Your task to perform on an android device: Open accessibility settings Image 0: 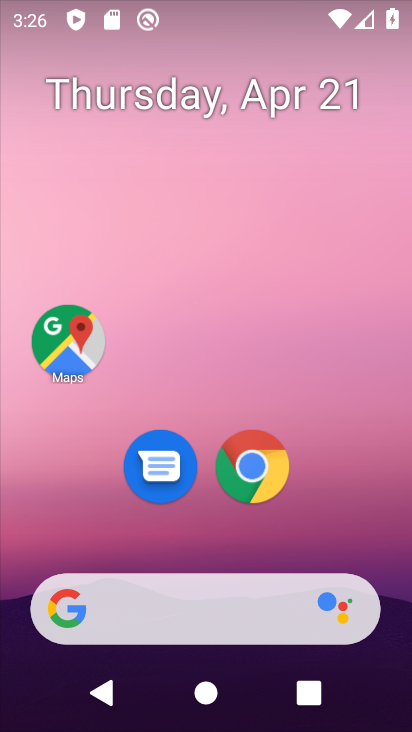
Step 0: drag from (224, 559) to (239, 187)
Your task to perform on an android device: Open accessibility settings Image 1: 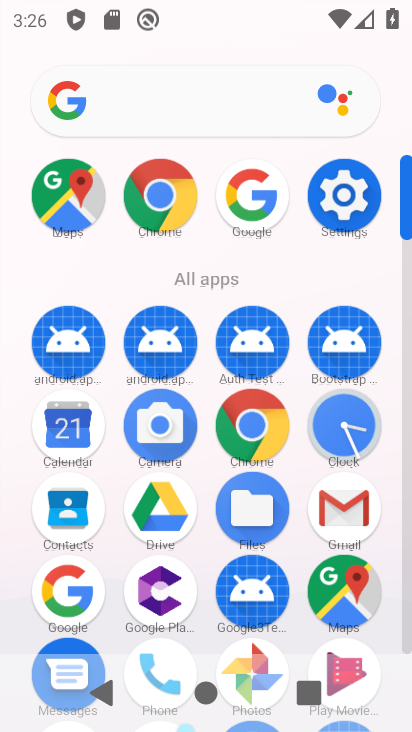
Step 1: click (330, 188)
Your task to perform on an android device: Open accessibility settings Image 2: 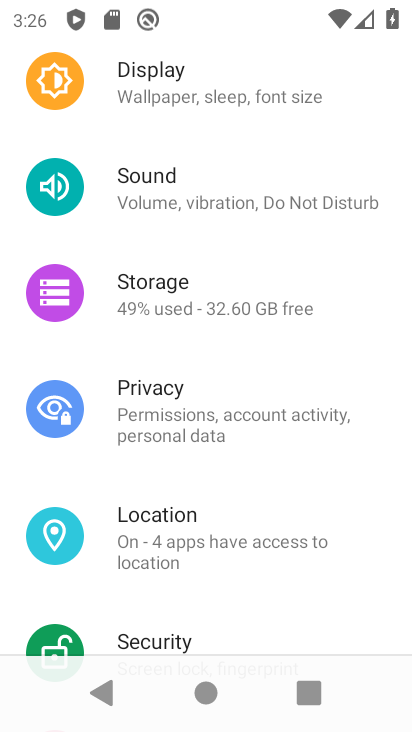
Step 2: drag from (216, 626) to (247, 254)
Your task to perform on an android device: Open accessibility settings Image 3: 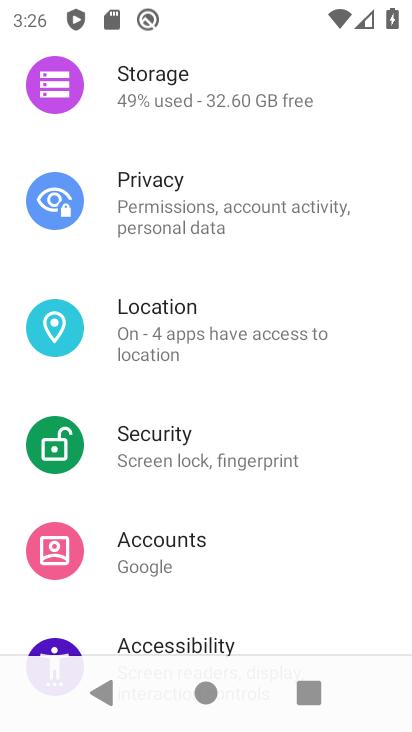
Step 3: drag from (252, 582) to (271, 305)
Your task to perform on an android device: Open accessibility settings Image 4: 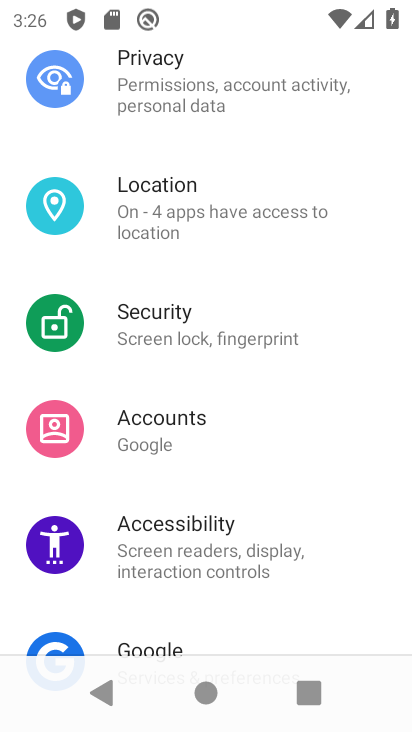
Step 4: drag from (258, 598) to (273, 512)
Your task to perform on an android device: Open accessibility settings Image 5: 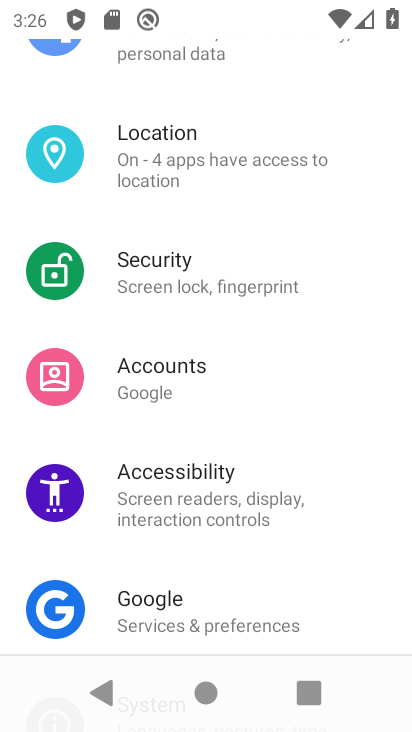
Step 5: click (246, 503)
Your task to perform on an android device: Open accessibility settings Image 6: 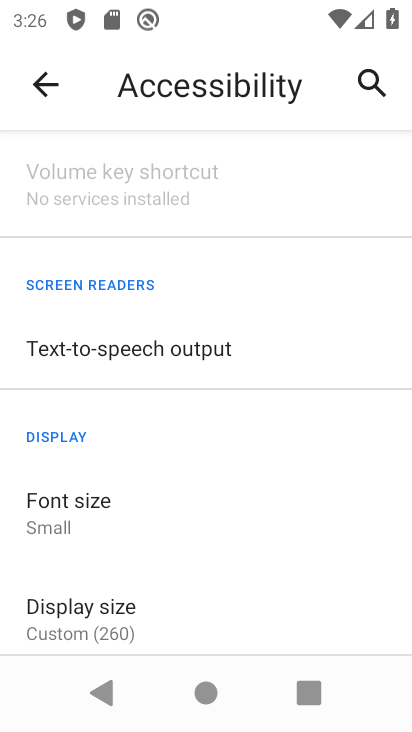
Step 6: task complete